Your task to perform on an android device: Go to Google maps Image 0: 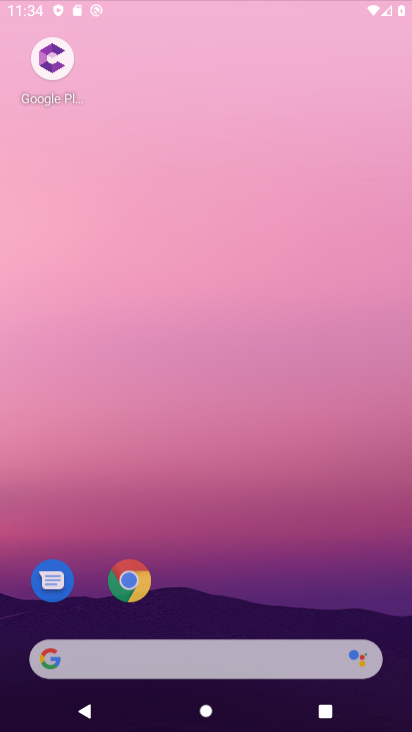
Step 0: drag from (143, 13) to (277, 18)
Your task to perform on an android device: Go to Google maps Image 1: 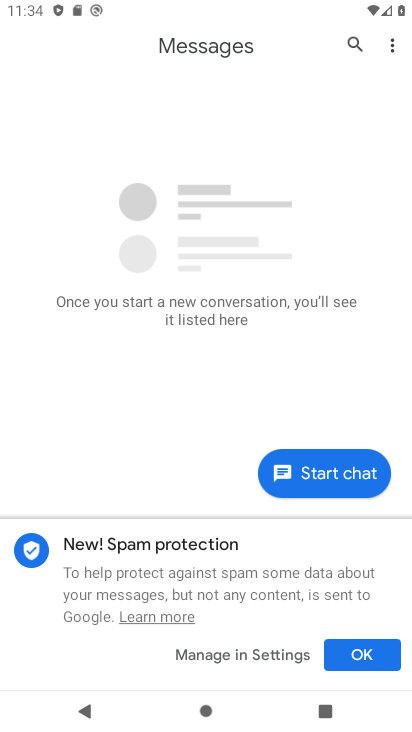
Step 1: press home button
Your task to perform on an android device: Go to Google maps Image 2: 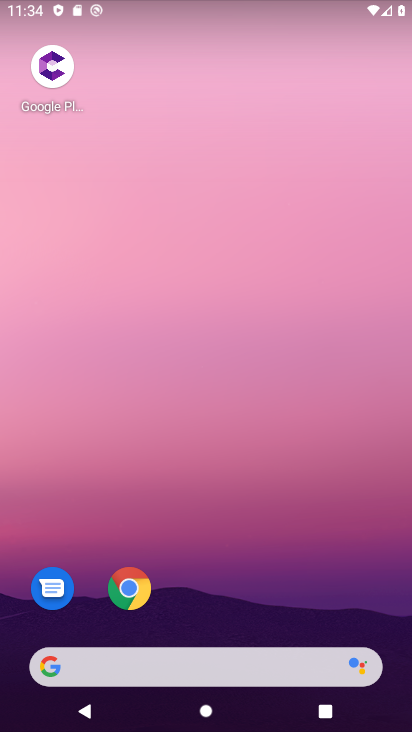
Step 2: drag from (215, 639) to (178, 0)
Your task to perform on an android device: Go to Google maps Image 3: 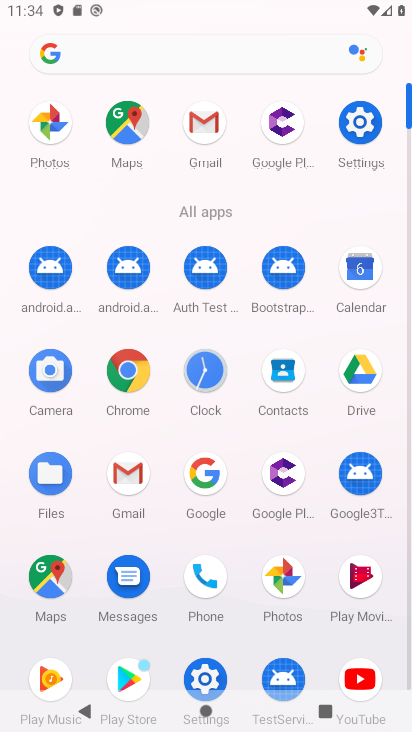
Step 3: click (58, 576)
Your task to perform on an android device: Go to Google maps Image 4: 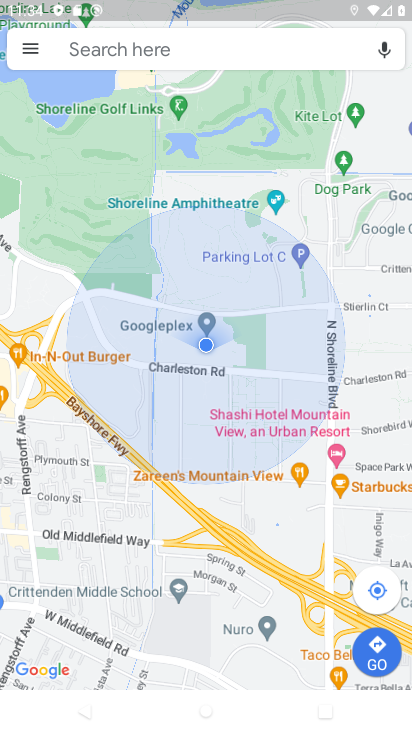
Step 4: task complete